Your task to perform on an android device: What's the weather going to be tomorrow? Image 0: 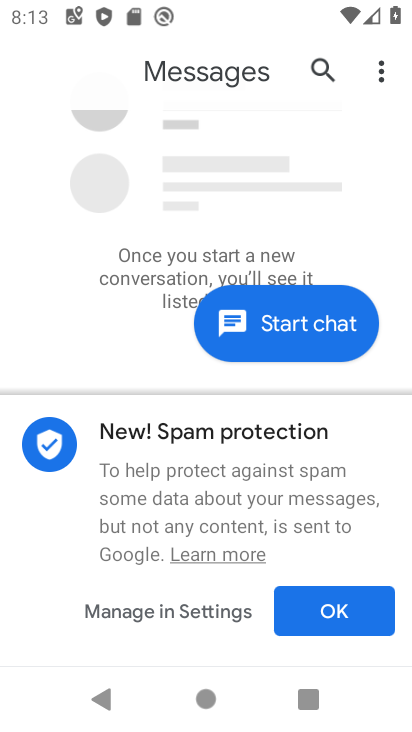
Step 0: press home button
Your task to perform on an android device: What's the weather going to be tomorrow? Image 1: 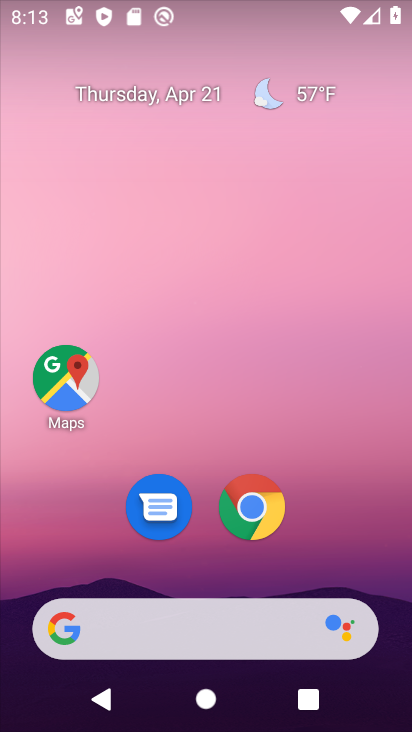
Step 1: click (270, 516)
Your task to perform on an android device: What's the weather going to be tomorrow? Image 2: 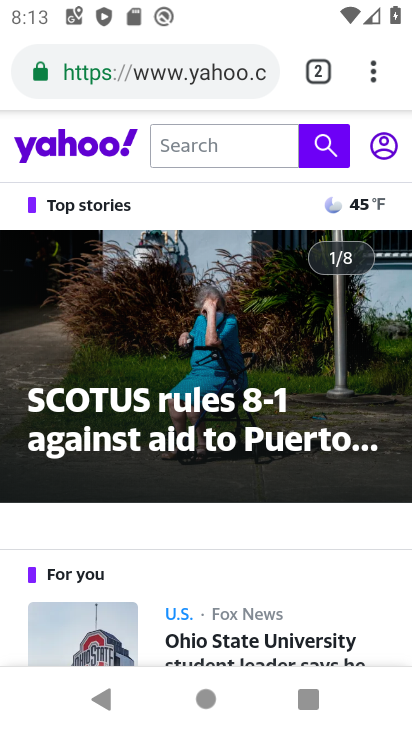
Step 2: click (181, 71)
Your task to perform on an android device: What's the weather going to be tomorrow? Image 3: 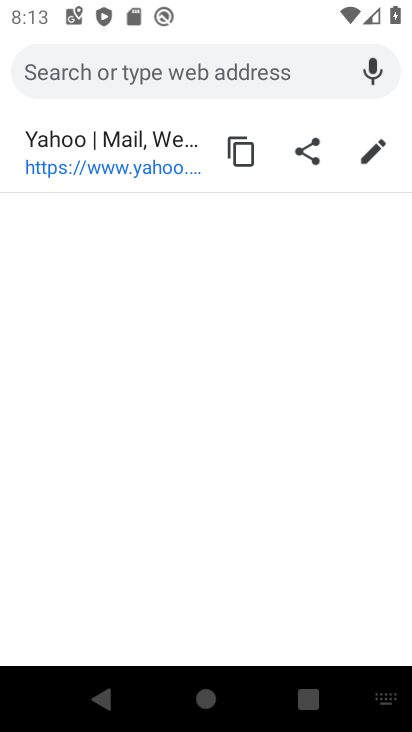
Step 3: type "What's the weather going to be tomorrow?"
Your task to perform on an android device: What's the weather going to be tomorrow? Image 4: 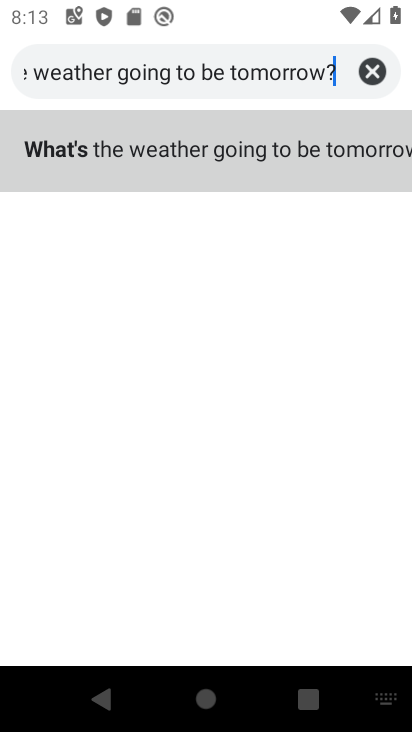
Step 4: click (103, 159)
Your task to perform on an android device: What's the weather going to be tomorrow? Image 5: 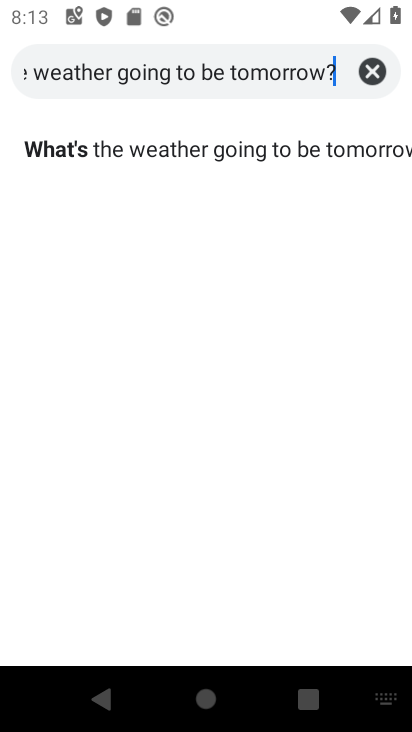
Step 5: click (130, 153)
Your task to perform on an android device: What's the weather going to be tomorrow? Image 6: 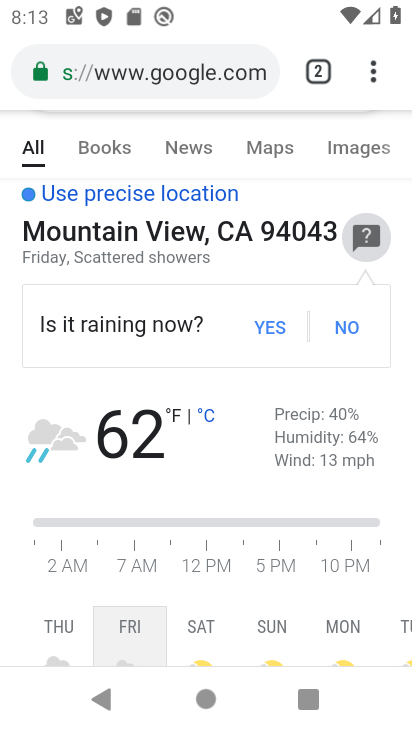
Step 6: task complete